Your task to perform on an android device: Open privacy settings Image 0: 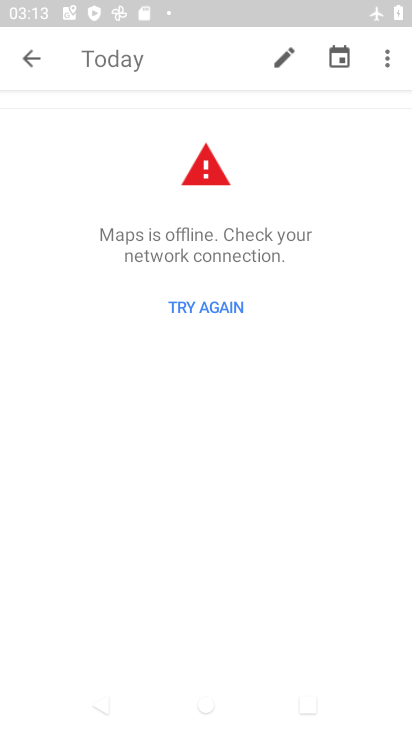
Step 0: click (290, 201)
Your task to perform on an android device: Open privacy settings Image 1: 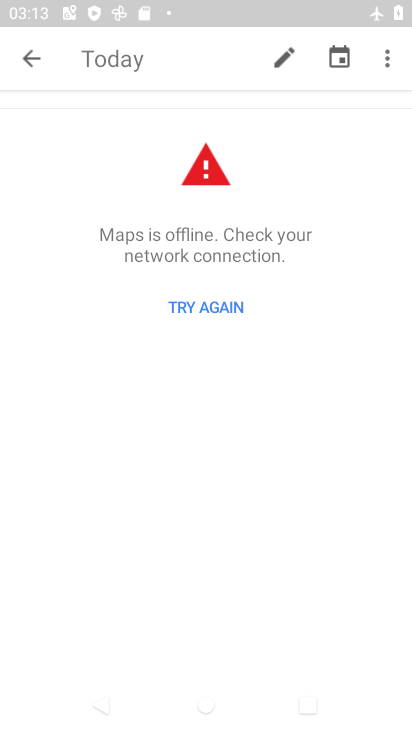
Step 1: click (258, 473)
Your task to perform on an android device: Open privacy settings Image 2: 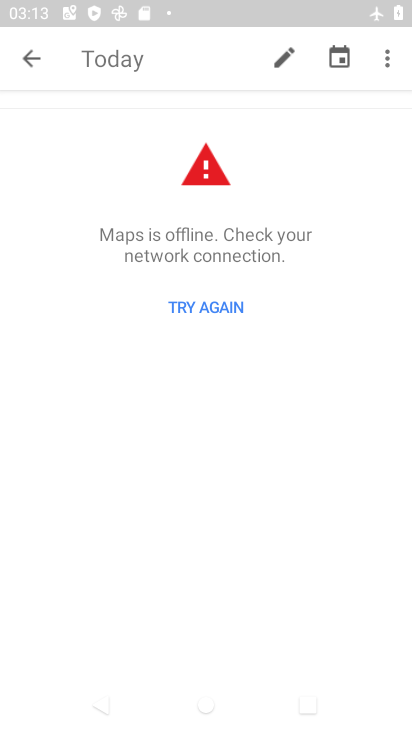
Step 2: press home button
Your task to perform on an android device: Open privacy settings Image 3: 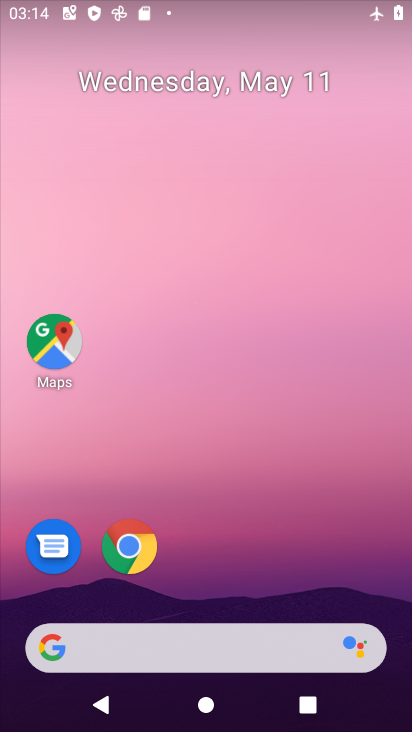
Step 3: drag from (183, 568) to (262, 33)
Your task to perform on an android device: Open privacy settings Image 4: 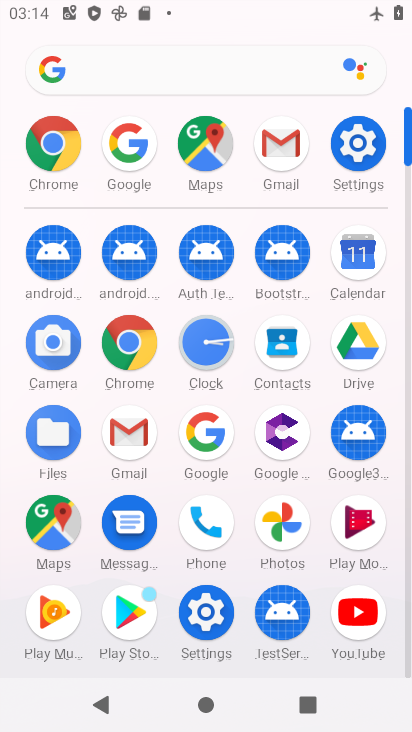
Step 4: click (366, 141)
Your task to perform on an android device: Open privacy settings Image 5: 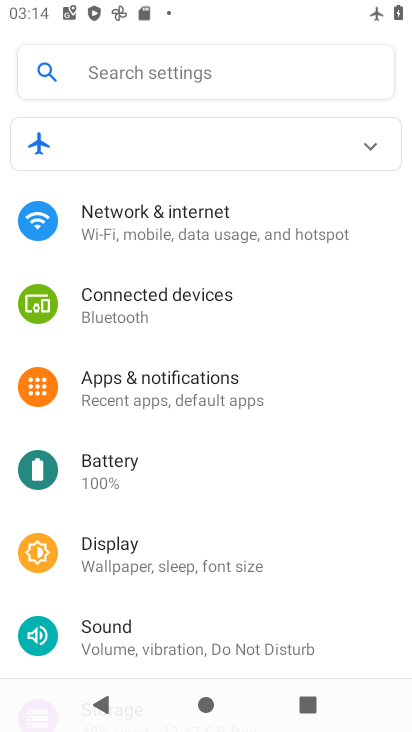
Step 5: drag from (118, 590) to (234, 140)
Your task to perform on an android device: Open privacy settings Image 6: 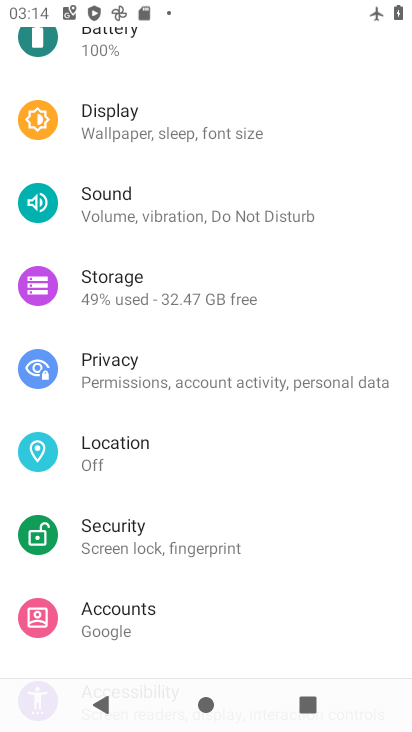
Step 6: click (145, 363)
Your task to perform on an android device: Open privacy settings Image 7: 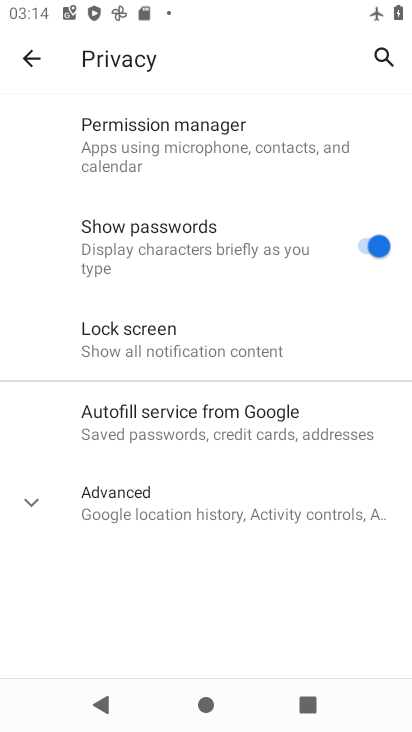
Step 7: task complete